Your task to perform on an android device: change the clock display to digital Image 0: 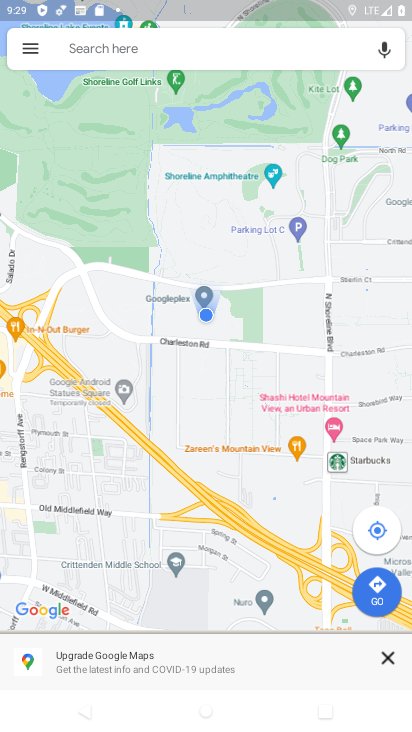
Step 0: press home button
Your task to perform on an android device: change the clock display to digital Image 1: 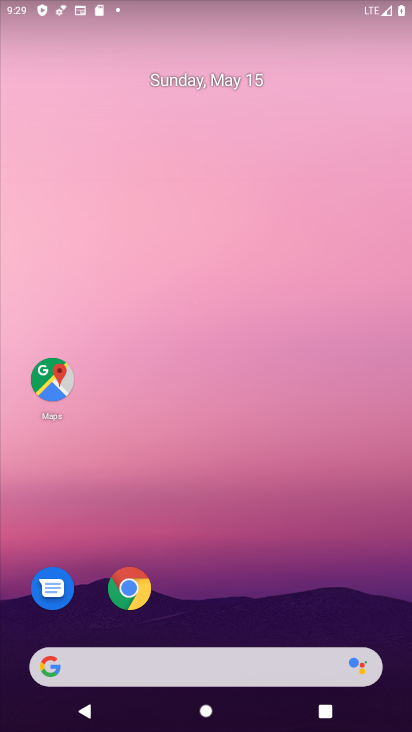
Step 1: drag from (233, 625) to (122, 221)
Your task to perform on an android device: change the clock display to digital Image 2: 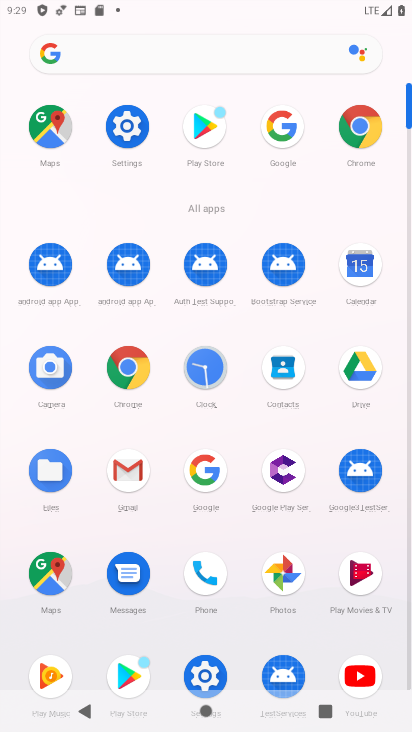
Step 2: click (201, 377)
Your task to perform on an android device: change the clock display to digital Image 3: 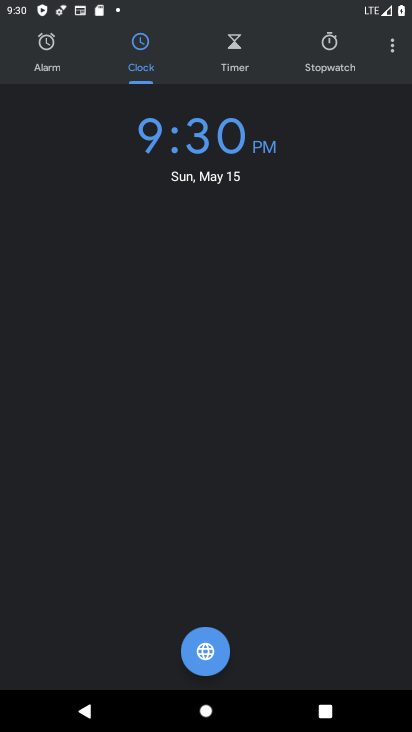
Step 3: click (394, 42)
Your task to perform on an android device: change the clock display to digital Image 4: 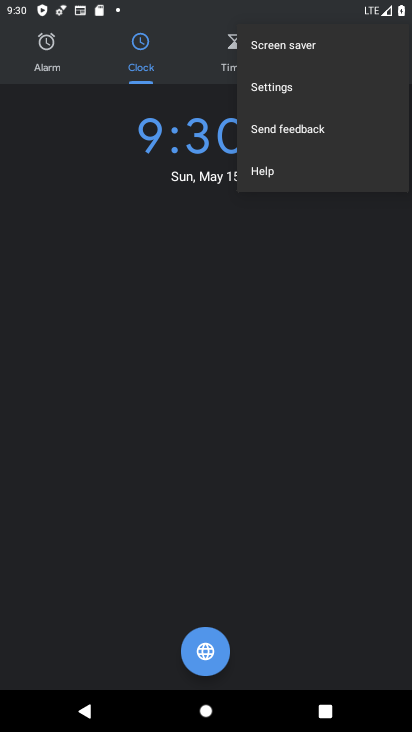
Step 4: click (271, 93)
Your task to perform on an android device: change the clock display to digital Image 5: 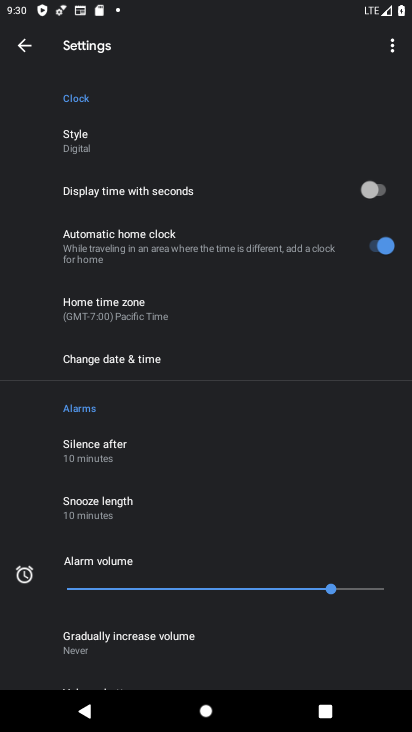
Step 5: click (83, 155)
Your task to perform on an android device: change the clock display to digital Image 6: 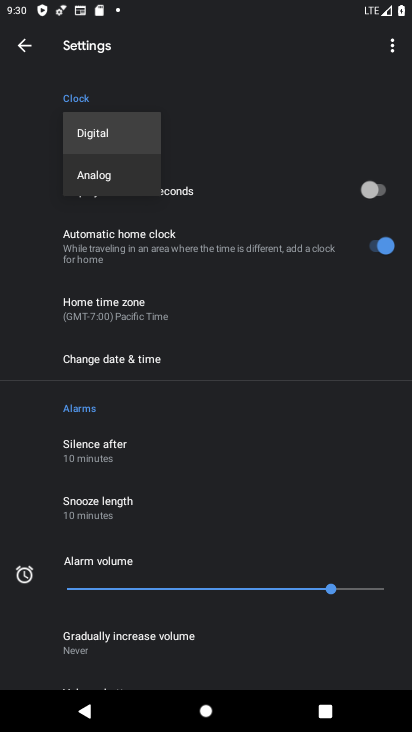
Step 6: task complete